Your task to perform on an android device: install app "The Home Depot" Image 0: 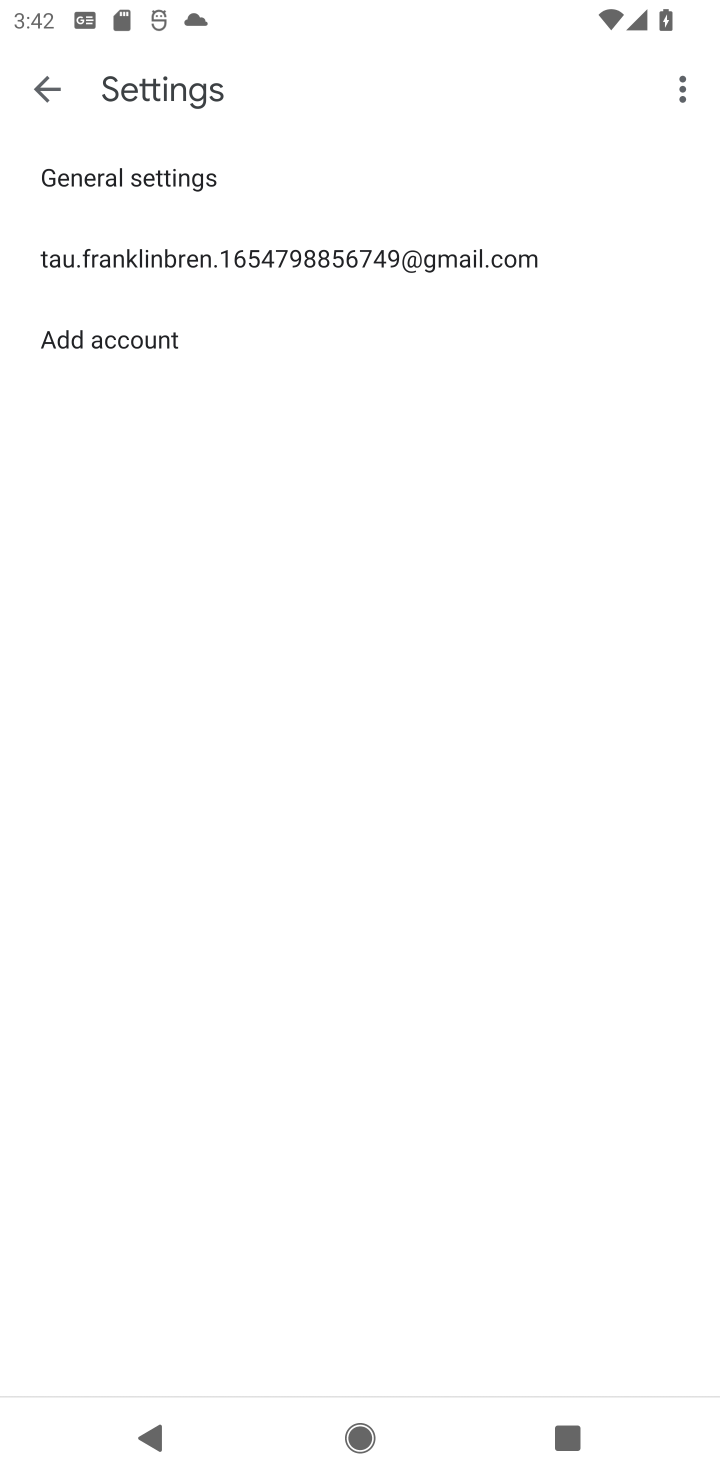
Step 0: press home button
Your task to perform on an android device: install app "The Home Depot" Image 1: 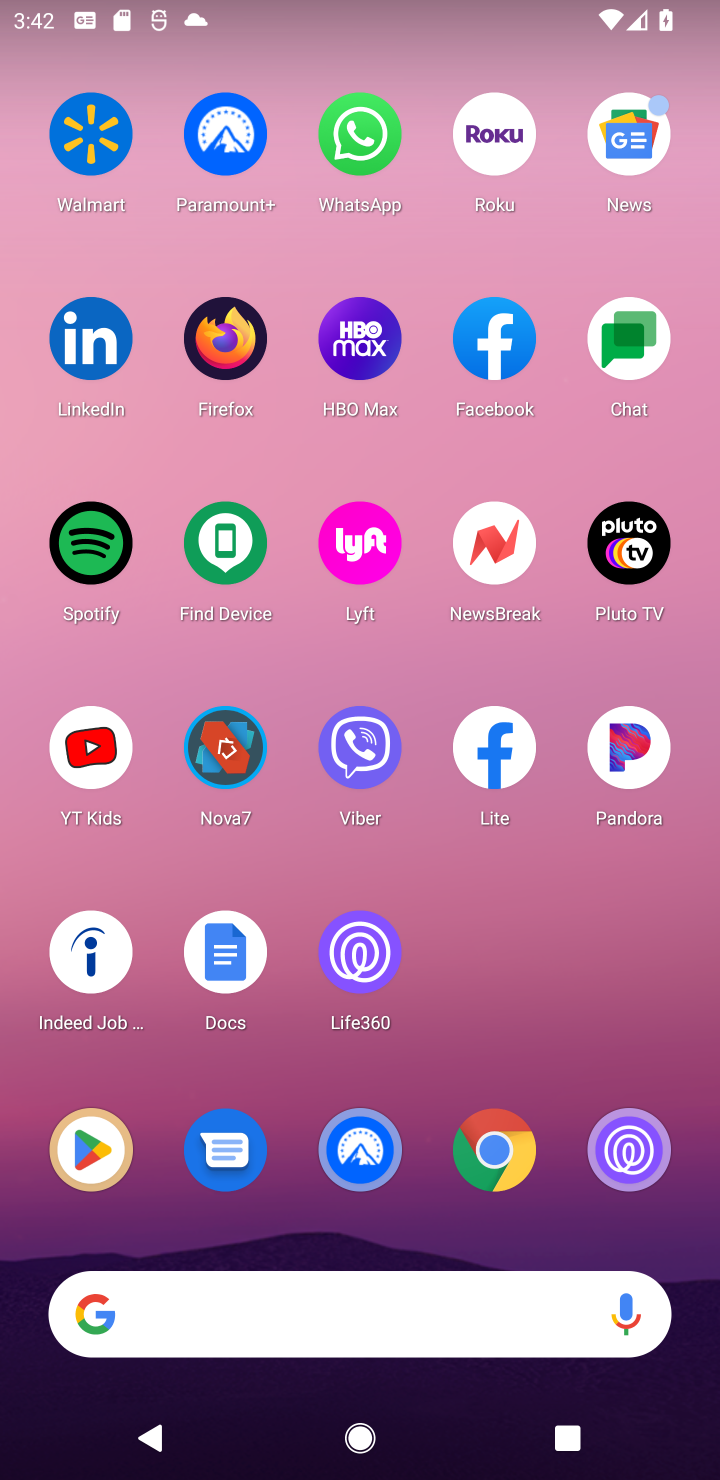
Step 1: click (132, 1163)
Your task to perform on an android device: install app "The Home Depot" Image 2: 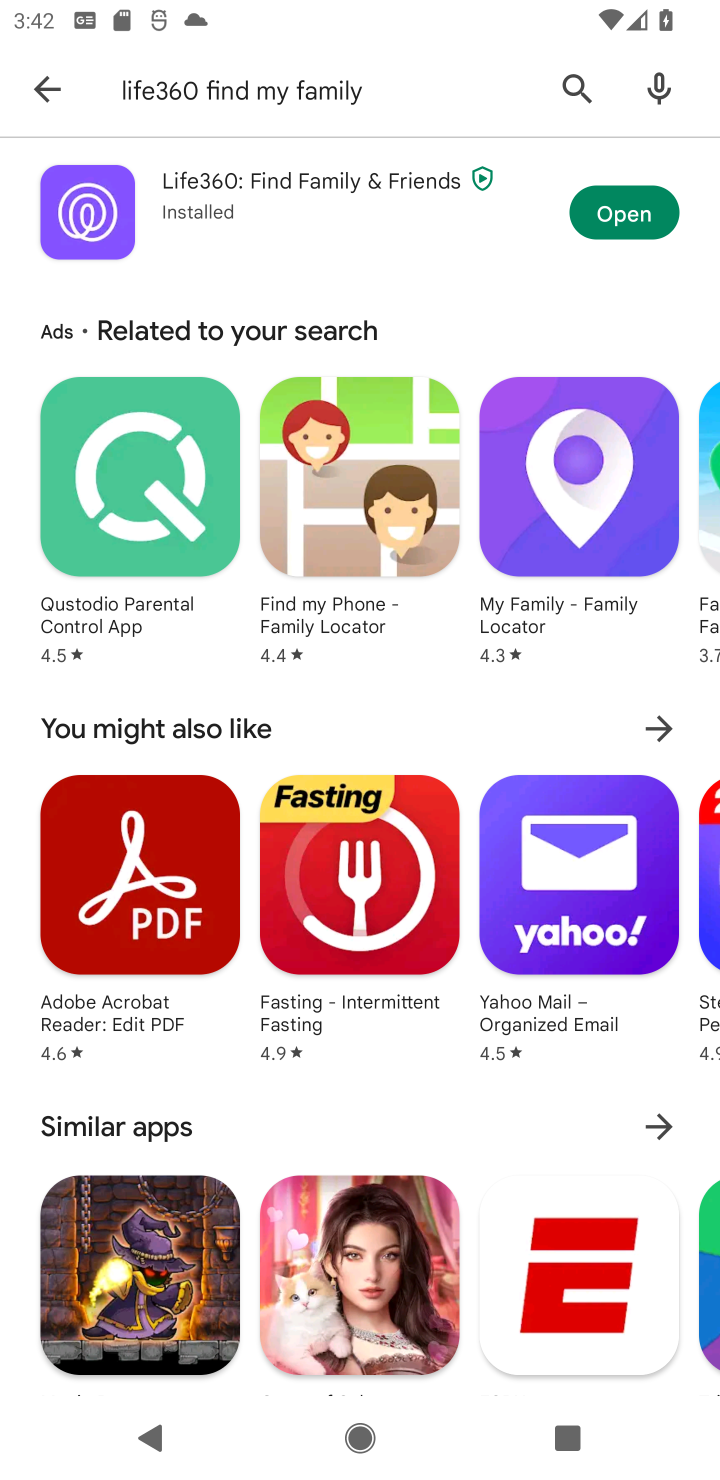
Step 2: click (592, 103)
Your task to perform on an android device: install app "The Home Depot" Image 3: 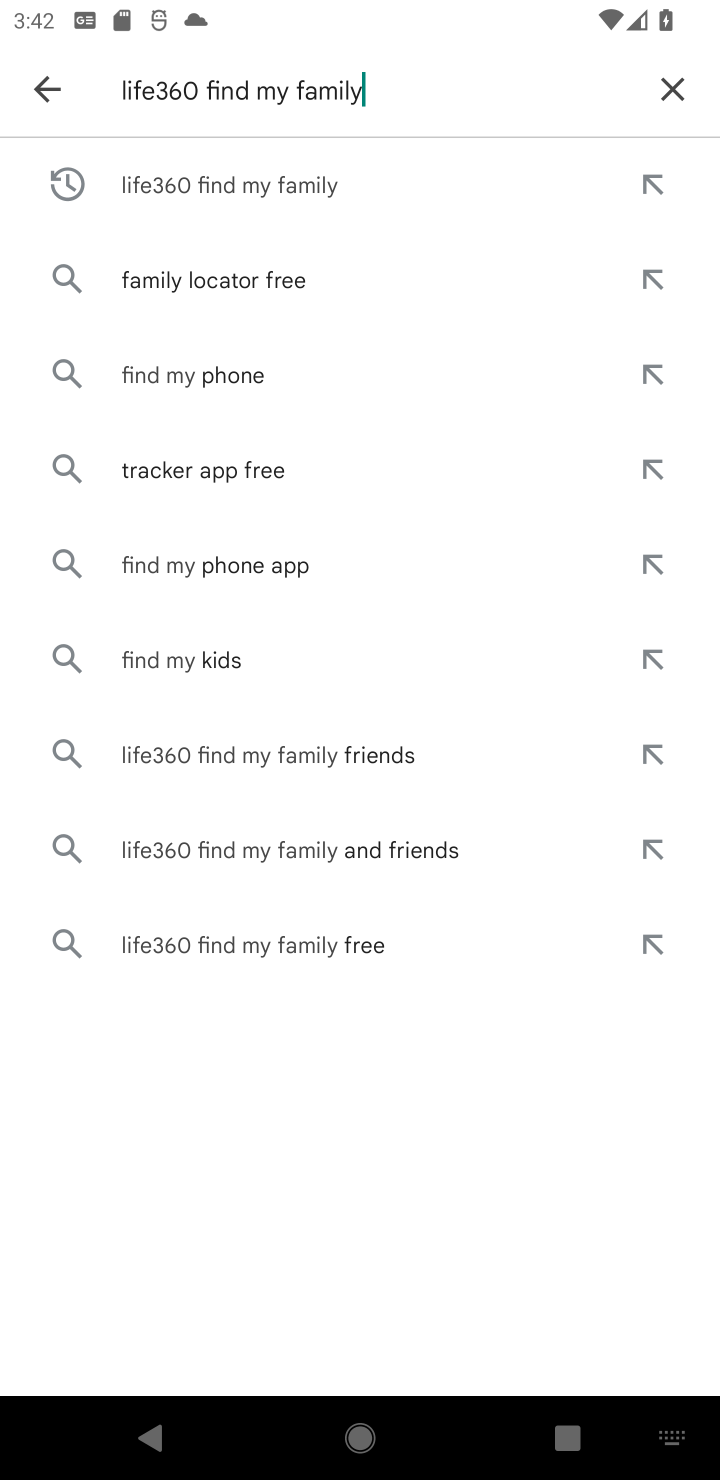
Step 3: click (667, 103)
Your task to perform on an android device: install app "The Home Depot" Image 4: 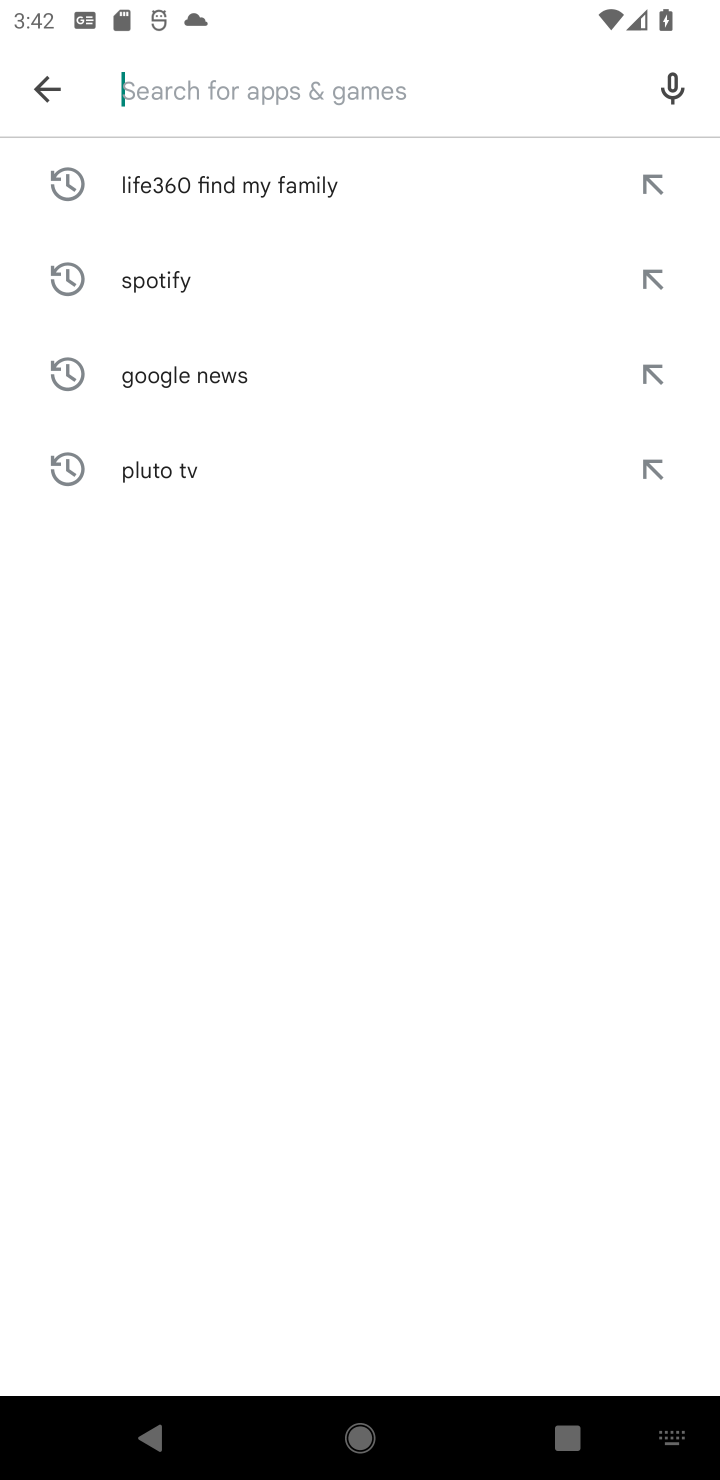
Step 4: type "the home depot"
Your task to perform on an android device: install app "The Home Depot" Image 5: 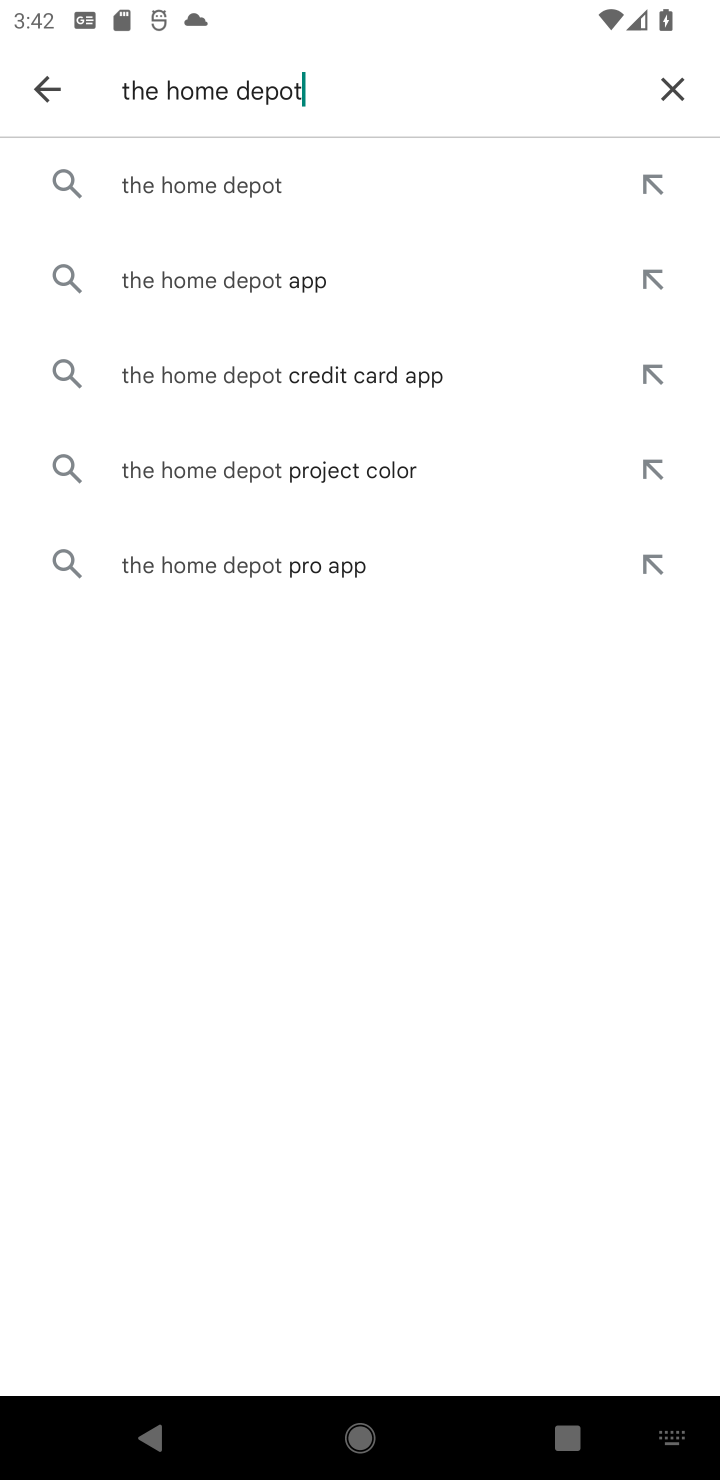
Step 5: click (378, 166)
Your task to perform on an android device: install app "The Home Depot" Image 6: 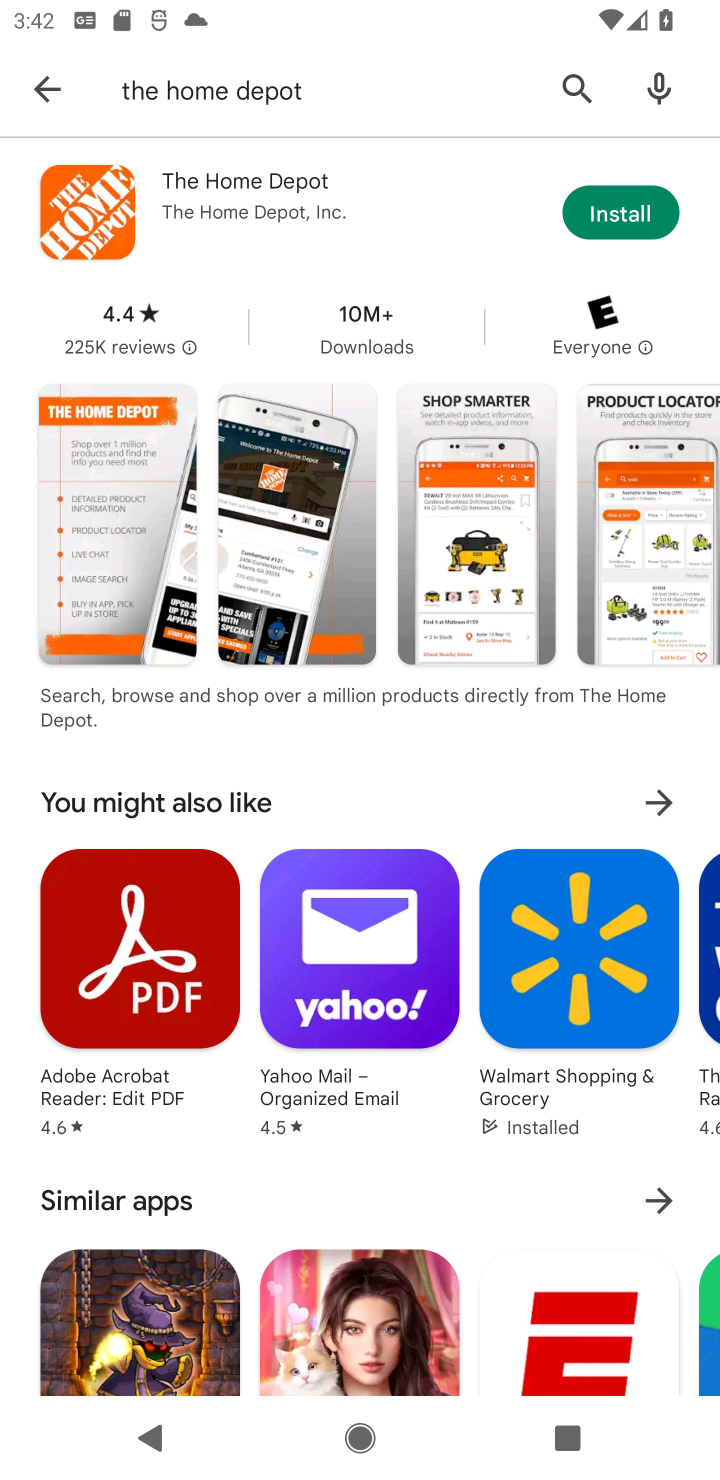
Step 6: click (646, 214)
Your task to perform on an android device: install app "The Home Depot" Image 7: 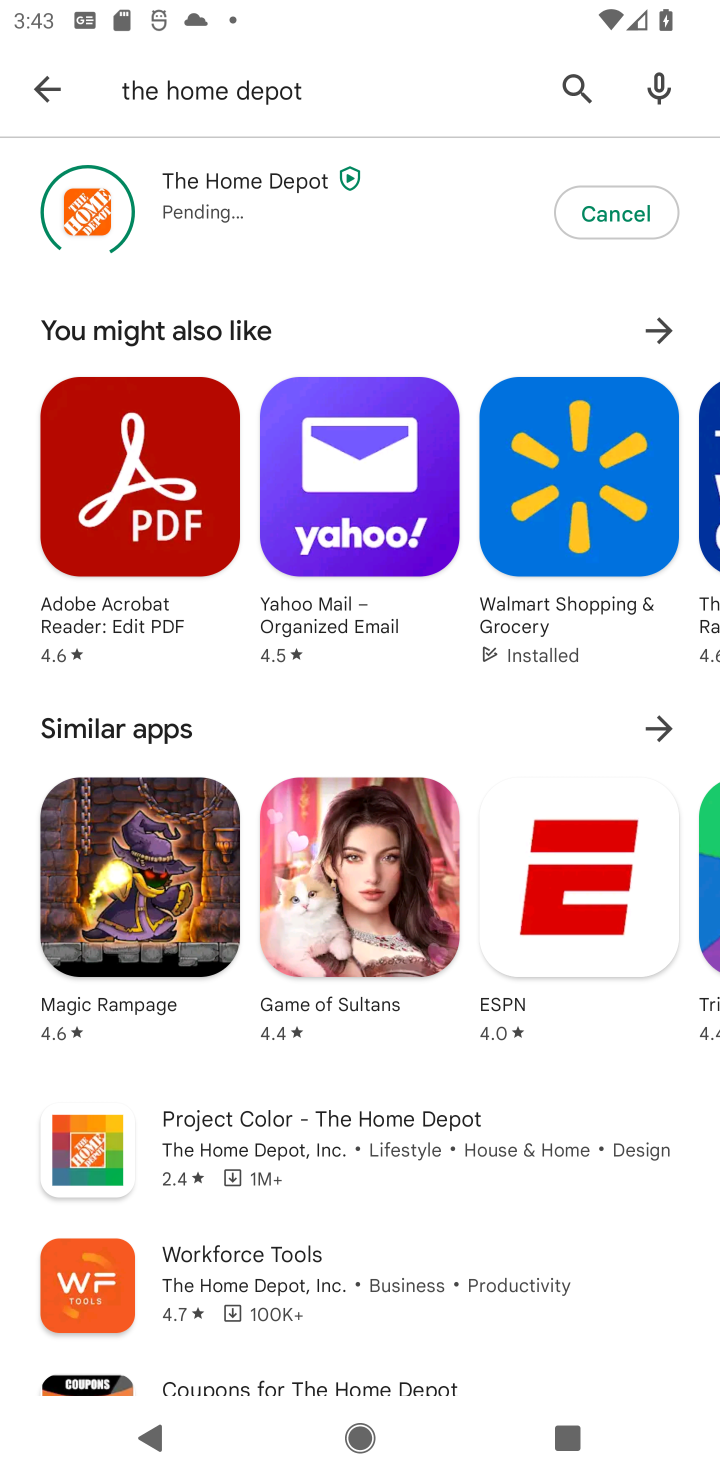
Step 7: task complete